Your task to perform on an android device: Go to Reddit.com Image 0: 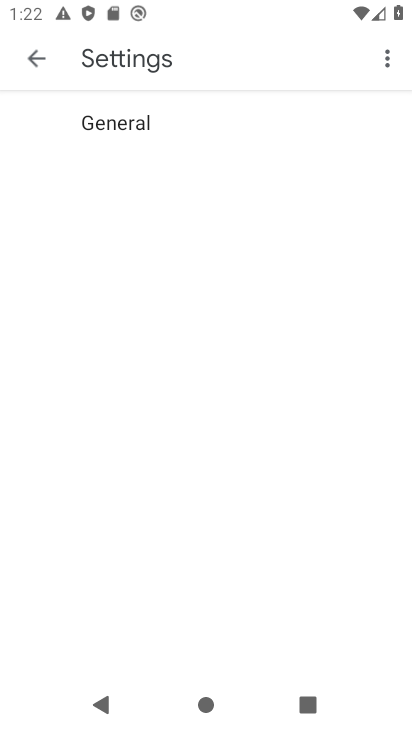
Step 0: press home button
Your task to perform on an android device: Go to Reddit.com Image 1: 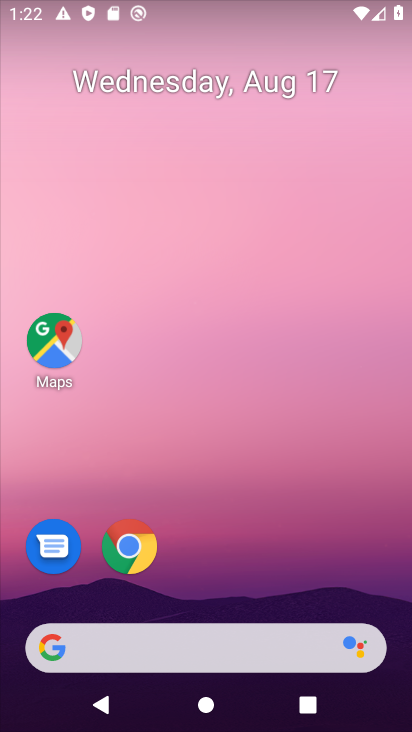
Step 1: click (130, 546)
Your task to perform on an android device: Go to Reddit.com Image 2: 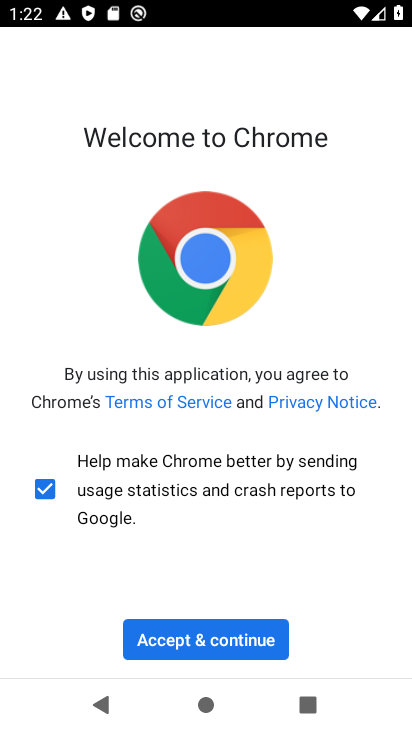
Step 2: click (193, 643)
Your task to perform on an android device: Go to Reddit.com Image 3: 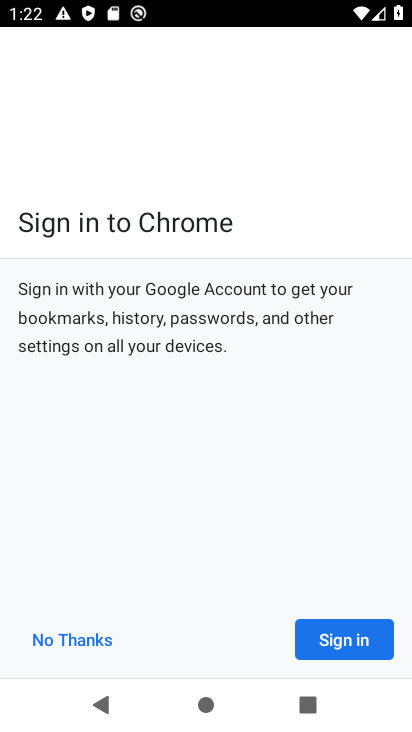
Step 3: click (323, 638)
Your task to perform on an android device: Go to Reddit.com Image 4: 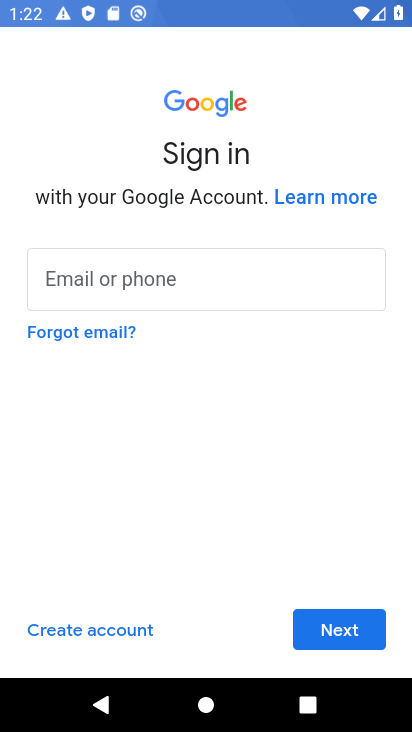
Step 4: click (323, 638)
Your task to perform on an android device: Go to Reddit.com Image 5: 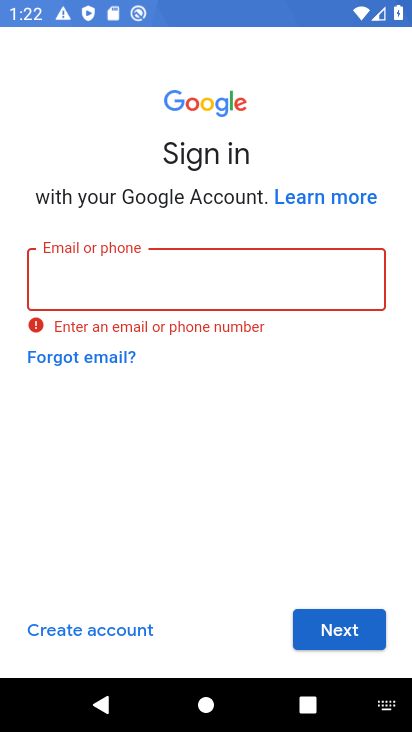
Step 5: task complete